Your task to perform on an android device: Open the calendar app, open the side menu, and click the "Day" option Image 0: 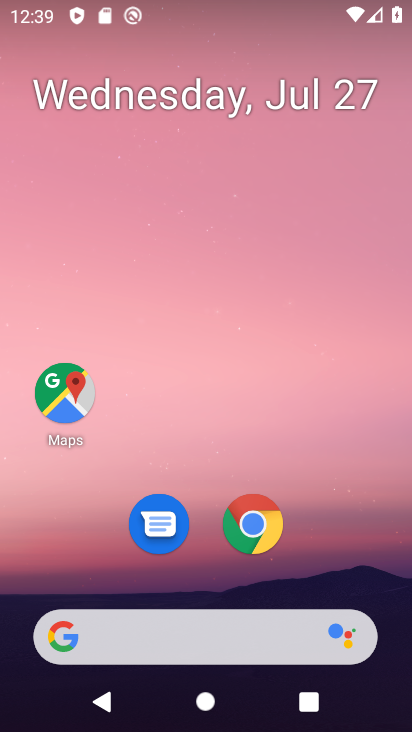
Step 0: drag from (354, 533) to (361, 64)
Your task to perform on an android device: Open the calendar app, open the side menu, and click the "Day" option Image 1: 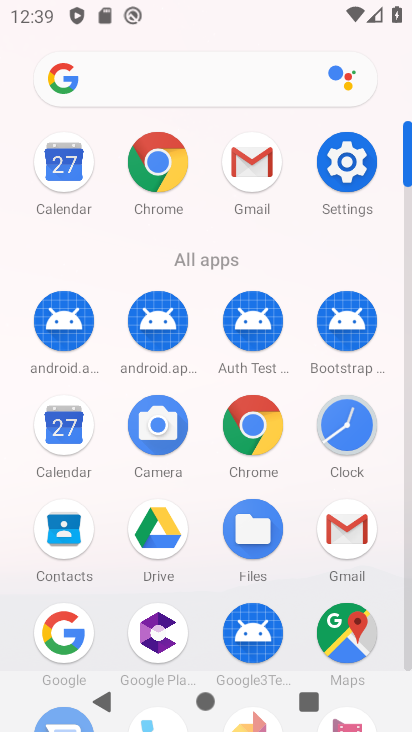
Step 1: click (68, 431)
Your task to perform on an android device: Open the calendar app, open the side menu, and click the "Day" option Image 2: 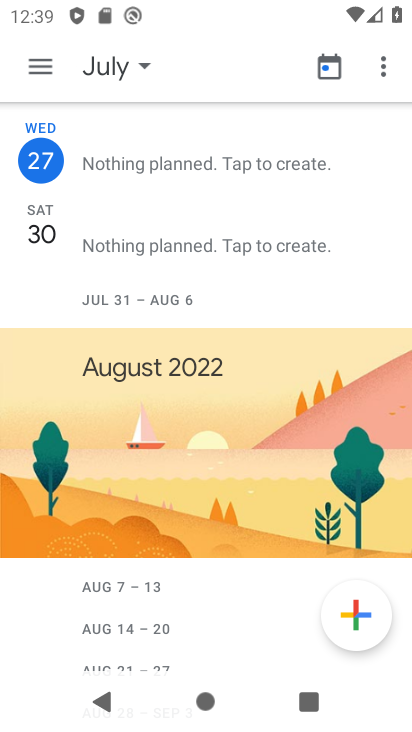
Step 2: click (44, 61)
Your task to perform on an android device: Open the calendar app, open the side menu, and click the "Day" option Image 3: 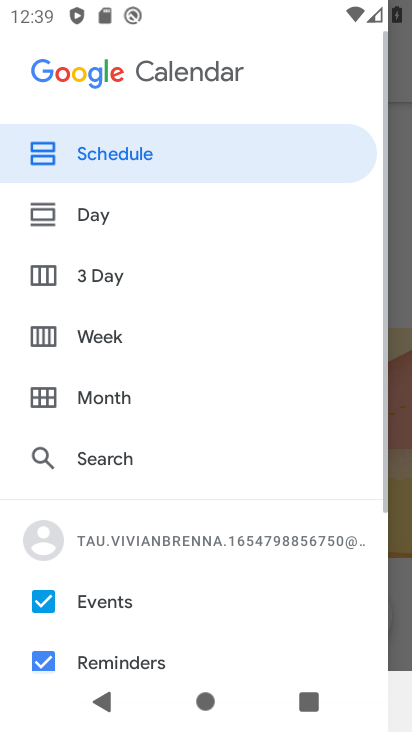
Step 3: click (46, 209)
Your task to perform on an android device: Open the calendar app, open the side menu, and click the "Day" option Image 4: 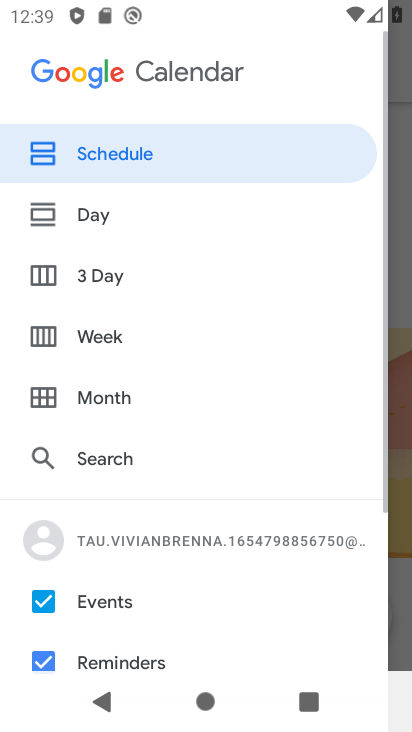
Step 4: click (44, 211)
Your task to perform on an android device: Open the calendar app, open the side menu, and click the "Day" option Image 5: 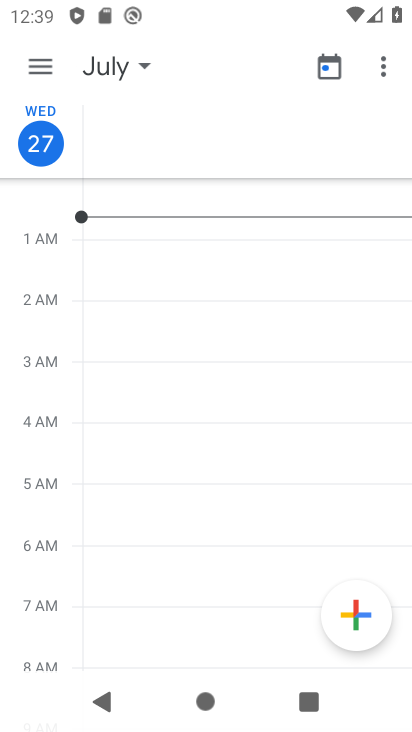
Step 5: task complete